Your task to perform on an android device: Turn off the flashlight Image 0: 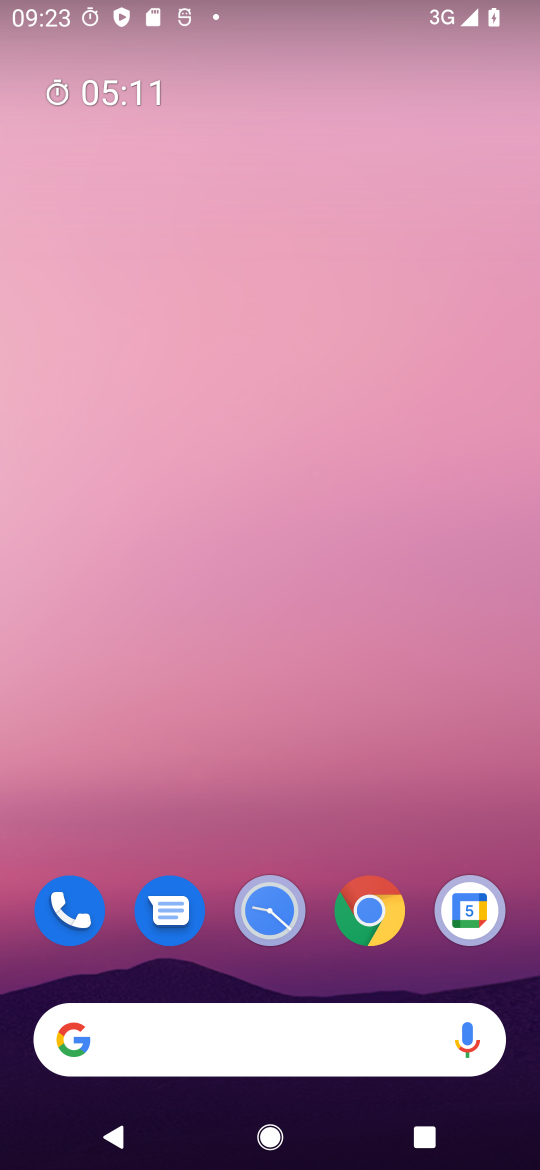
Step 0: drag from (343, 17) to (279, 730)
Your task to perform on an android device: Turn off the flashlight Image 1: 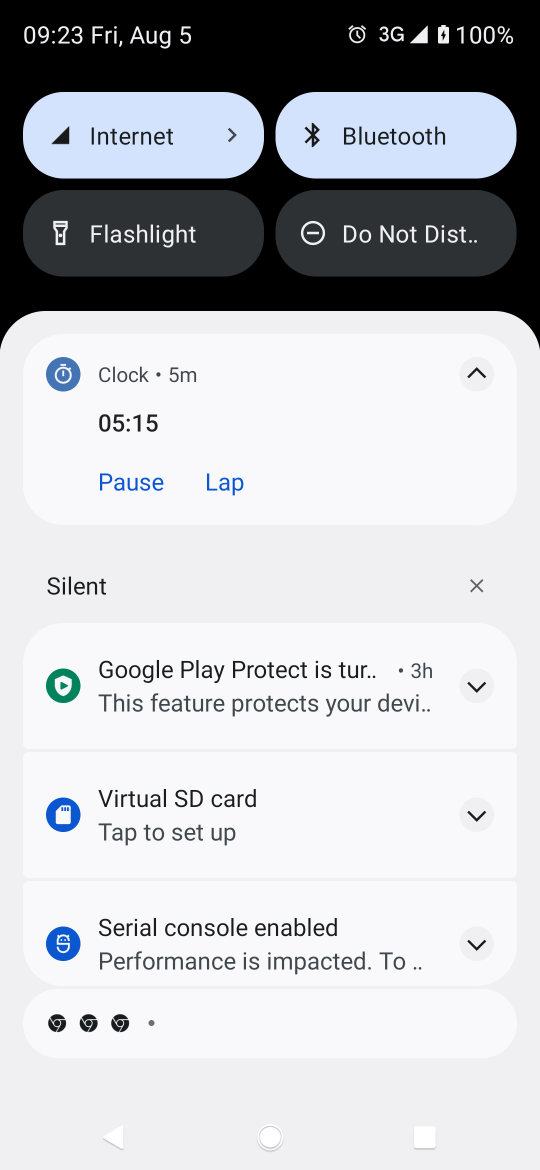
Step 1: click (193, 226)
Your task to perform on an android device: Turn off the flashlight Image 2: 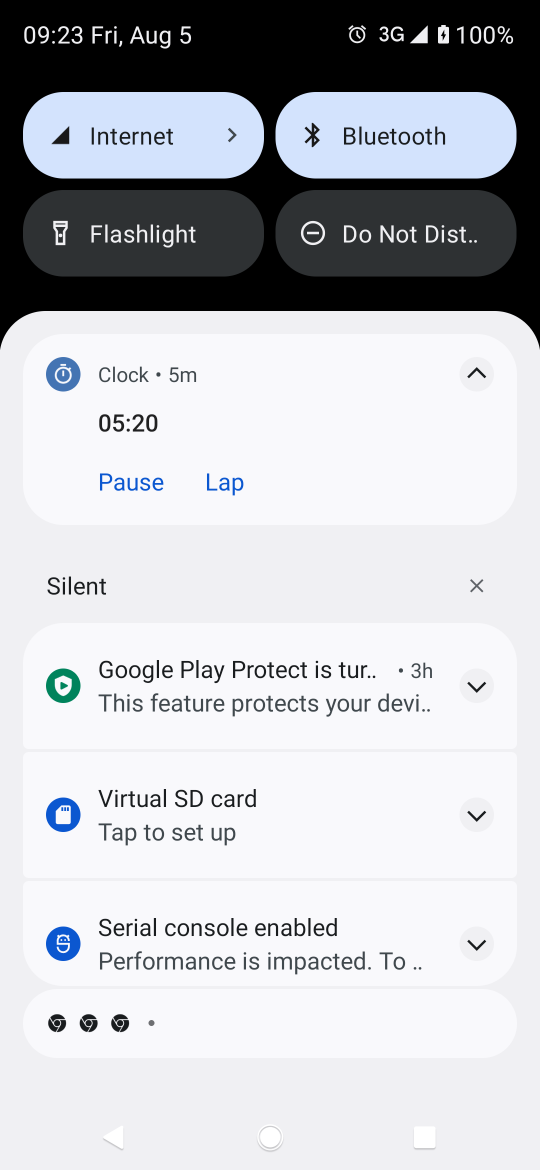
Step 2: task complete